Your task to perform on an android device: open app "Etsy: Buy & Sell Unique Items" Image 0: 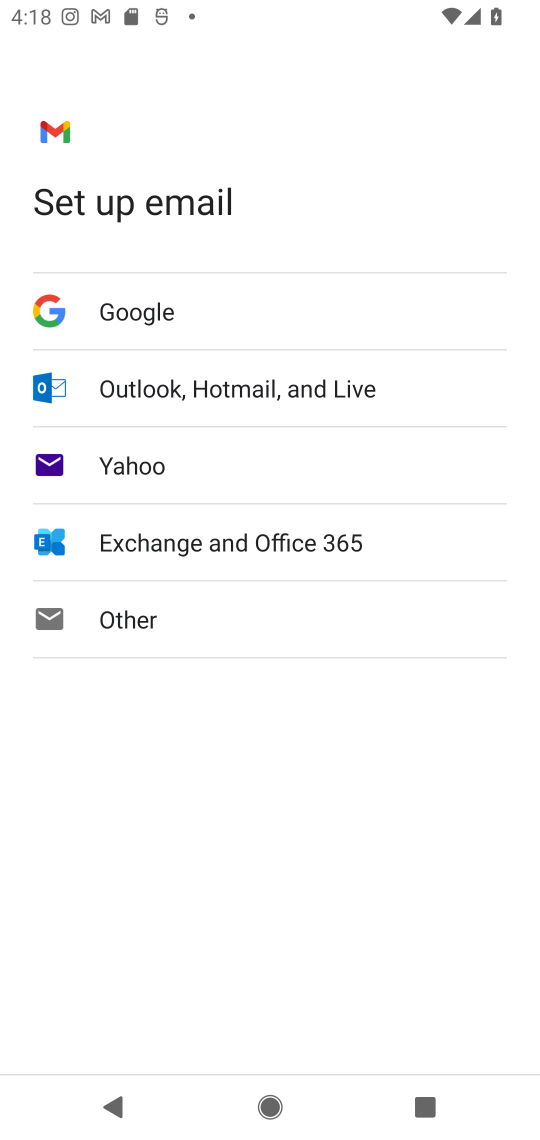
Step 0: press home button
Your task to perform on an android device: open app "Etsy: Buy & Sell Unique Items" Image 1: 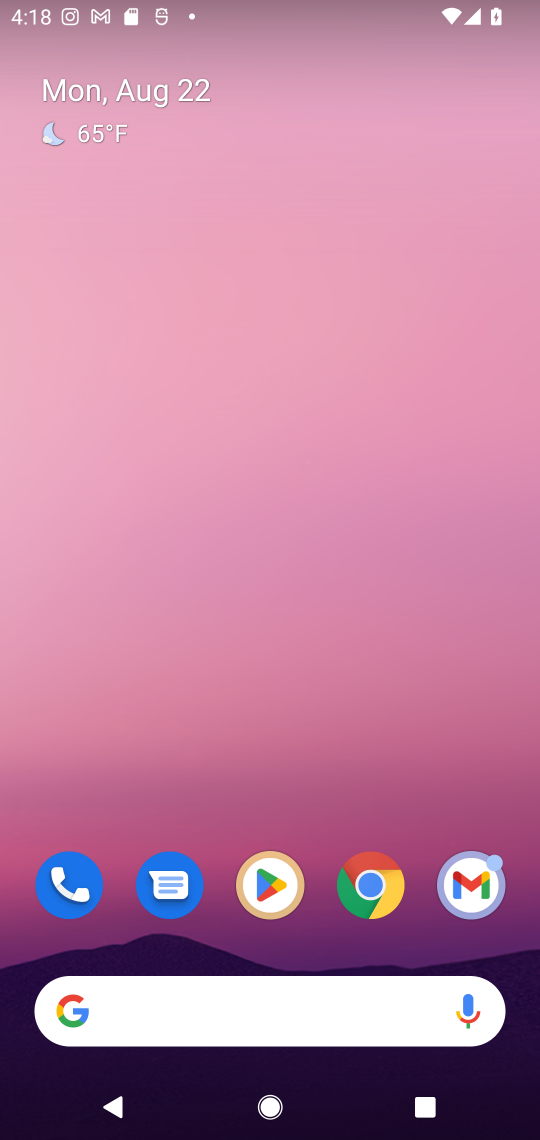
Step 1: click (266, 889)
Your task to perform on an android device: open app "Etsy: Buy & Sell Unique Items" Image 2: 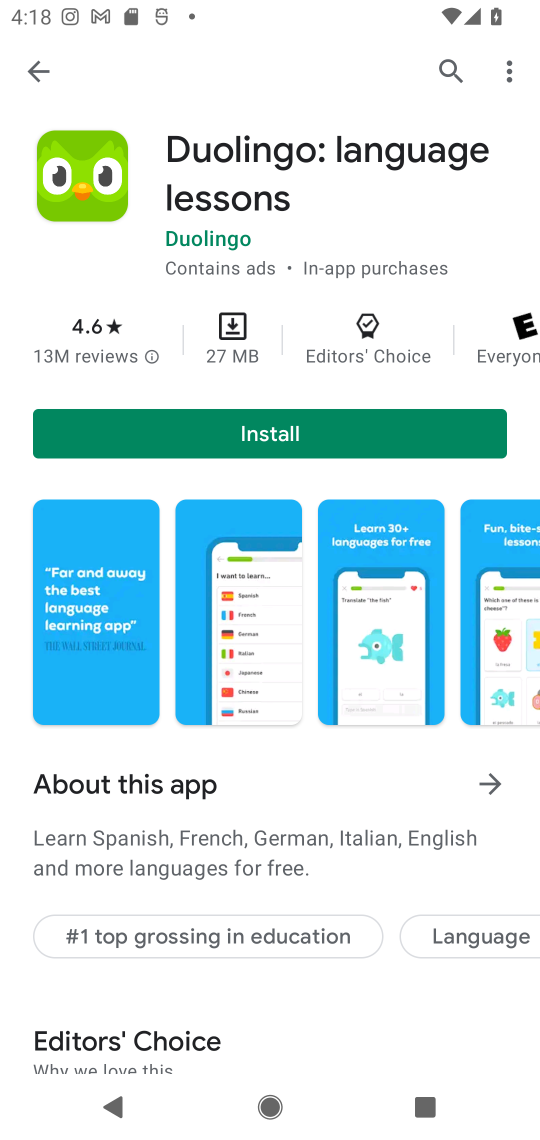
Step 2: click (444, 73)
Your task to perform on an android device: open app "Etsy: Buy & Sell Unique Items" Image 3: 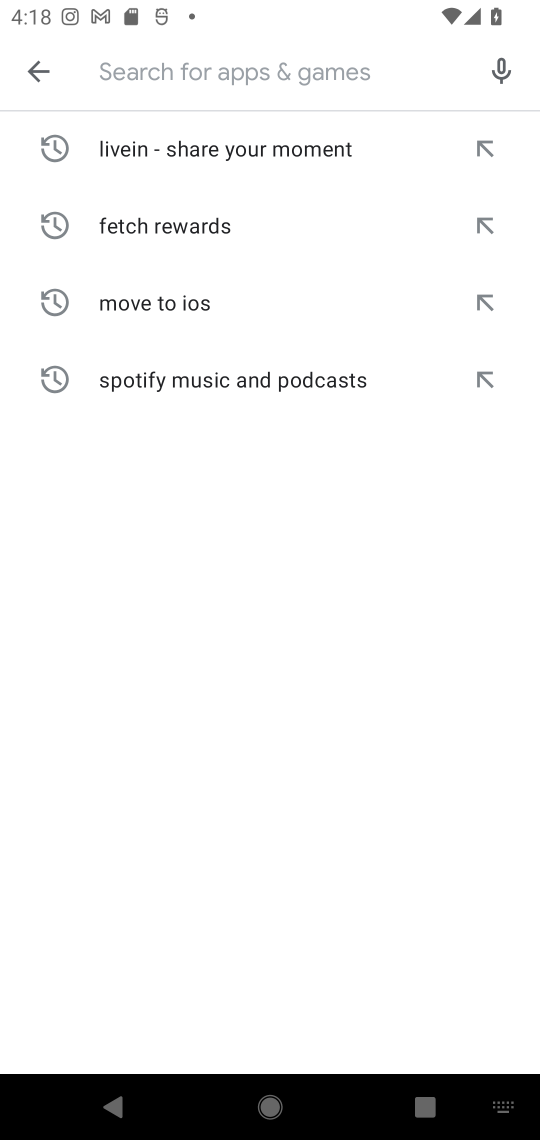
Step 3: type "Etsy: Buy & Sell Unique Items"
Your task to perform on an android device: open app "Etsy: Buy & Sell Unique Items" Image 4: 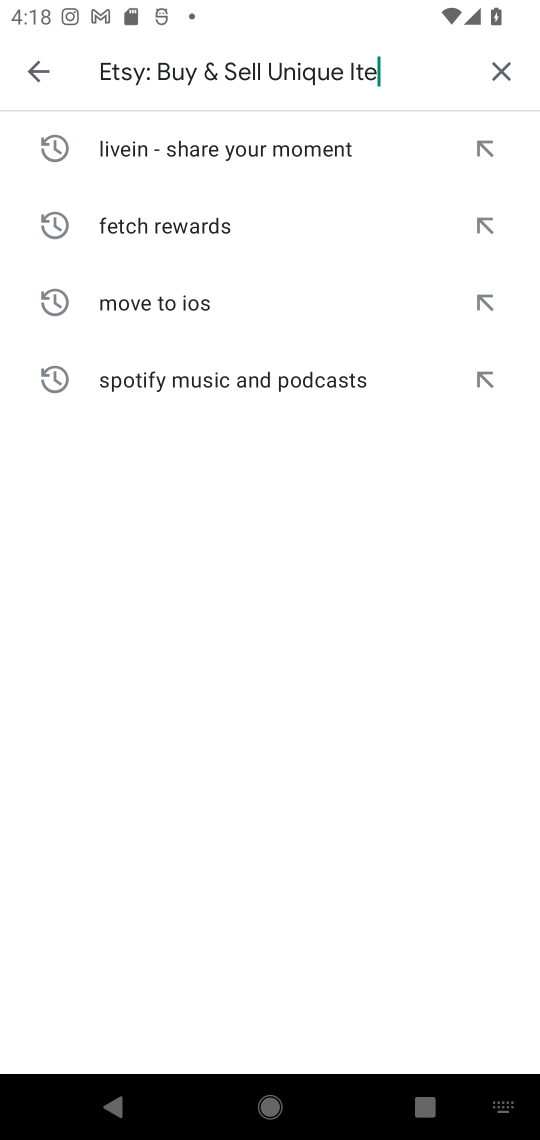
Step 4: type ""
Your task to perform on an android device: open app "Etsy: Buy & Sell Unique Items" Image 5: 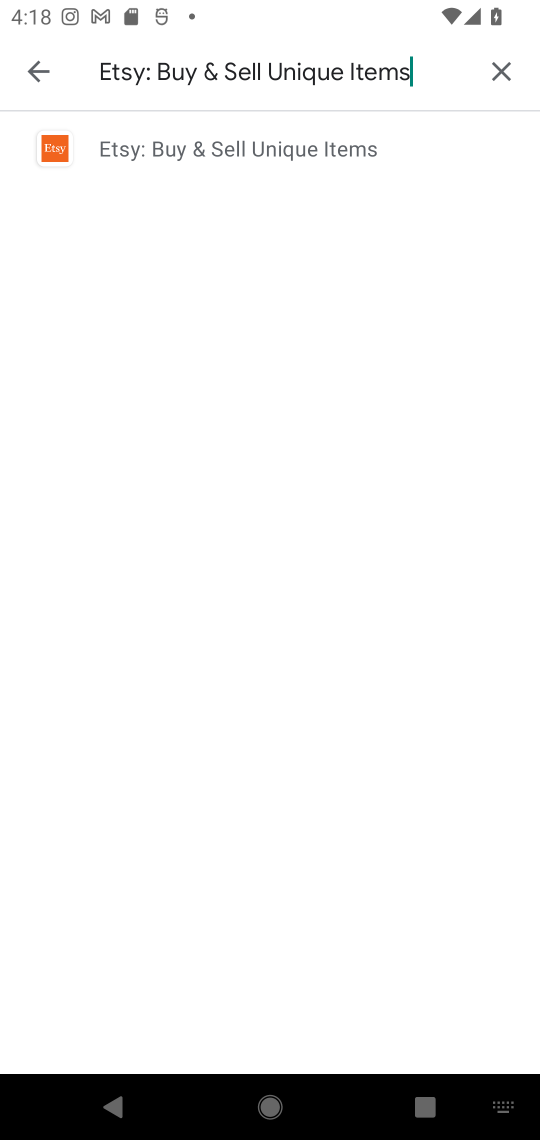
Step 5: click (87, 153)
Your task to perform on an android device: open app "Etsy: Buy & Sell Unique Items" Image 6: 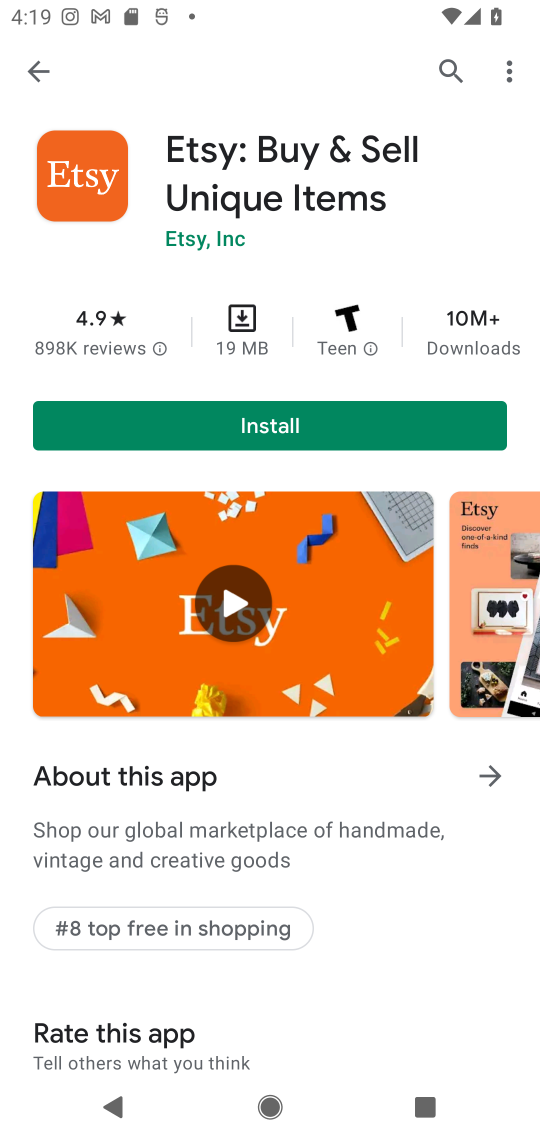
Step 6: click (267, 425)
Your task to perform on an android device: open app "Etsy: Buy & Sell Unique Items" Image 7: 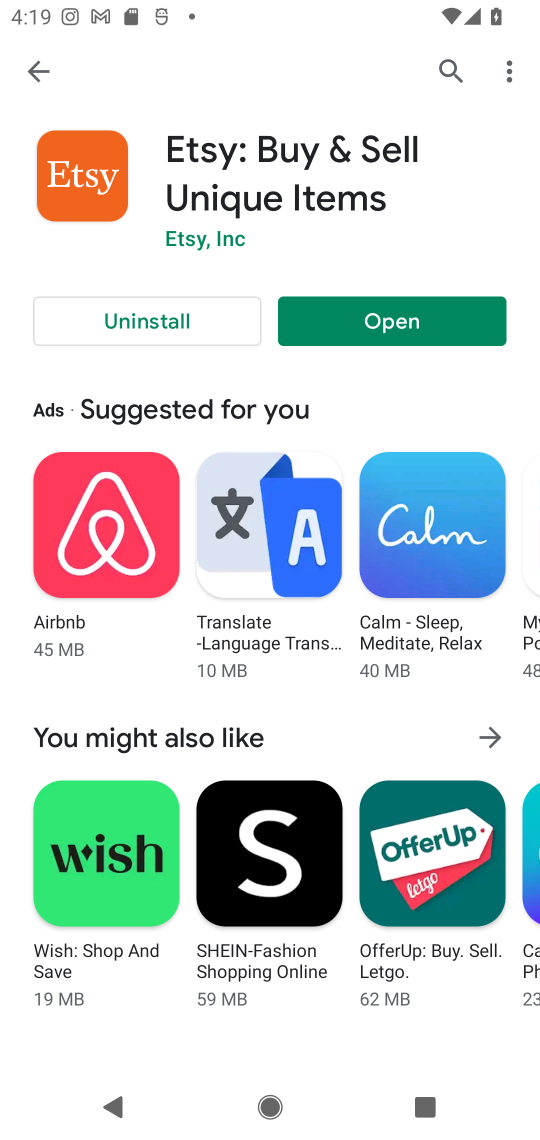
Step 7: click (394, 319)
Your task to perform on an android device: open app "Etsy: Buy & Sell Unique Items" Image 8: 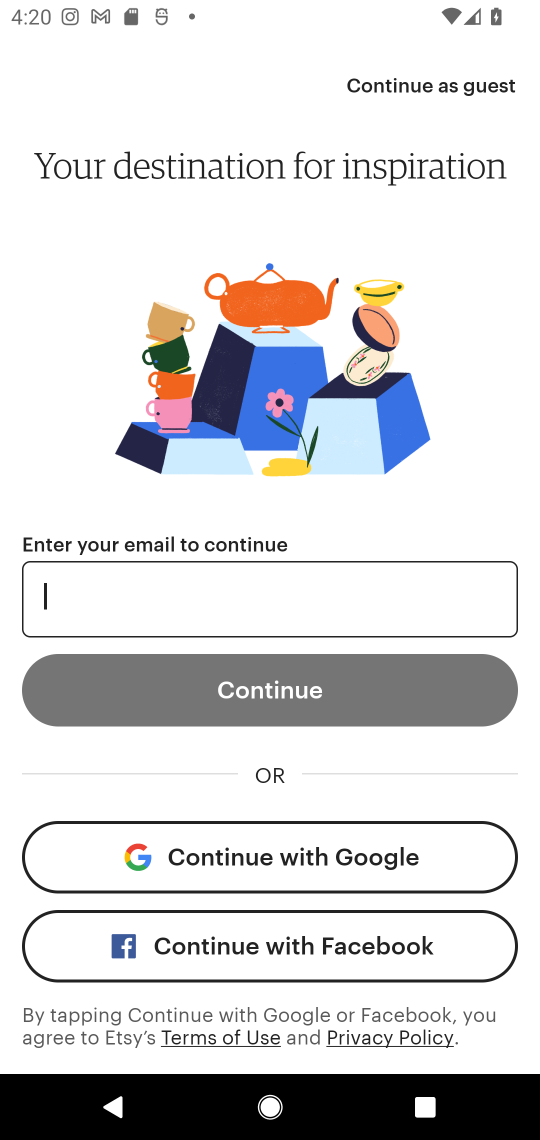
Step 8: click (276, 871)
Your task to perform on an android device: open app "Etsy: Buy & Sell Unique Items" Image 9: 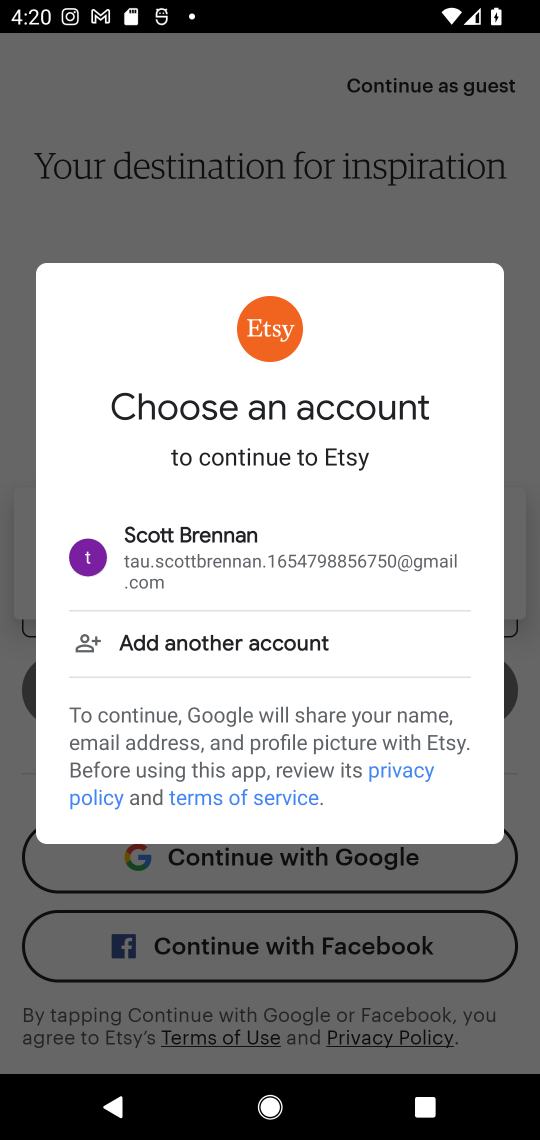
Step 9: click (204, 557)
Your task to perform on an android device: open app "Etsy: Buy & Sell Unique Items" Image 10: 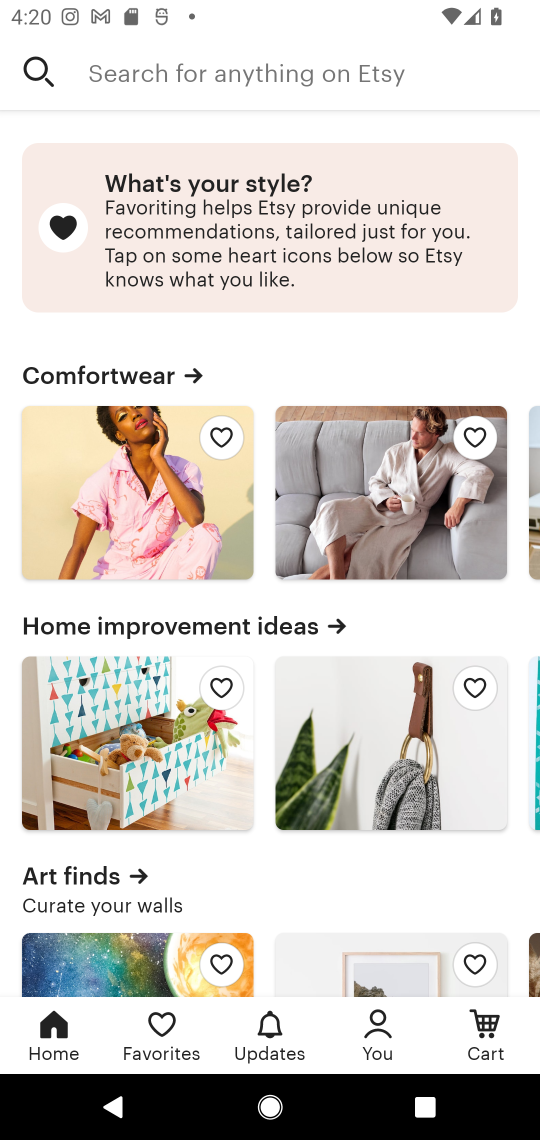
Step 10: task complete